Your task to perform on an android device: Search for sushi restaurants on Maps Image 0: 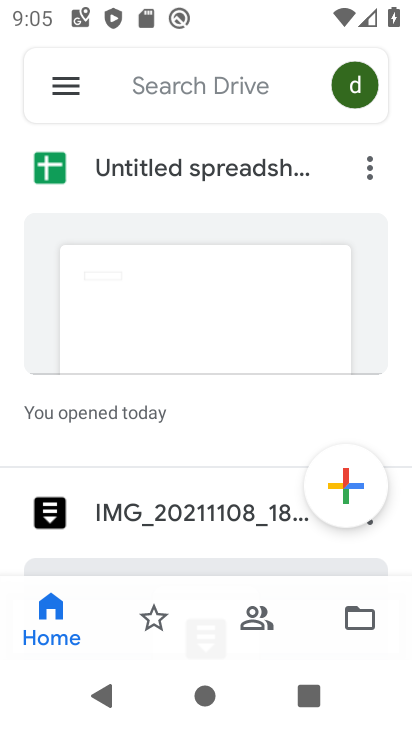
Step 0: press home button
Your task to perform on an android device: Search for sushi restaurants on Maps Image 1: 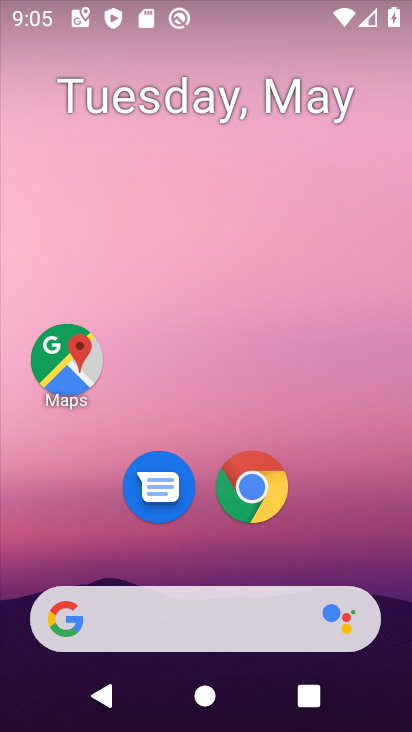
Step 1: drag from (369, 545) to (362, 235)
Your task to perform on an android device: Search for sushi restaurants on Maps Image 2: 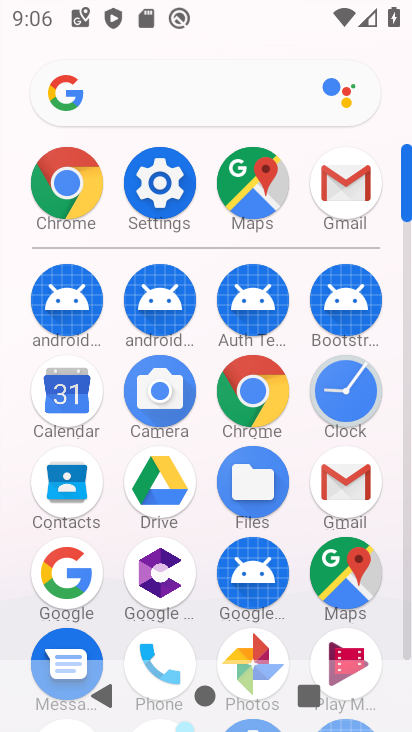
Step 2: click (361, 591)
Your task to perform on an android device: Search for sushi restaurants on Maps Image 3: 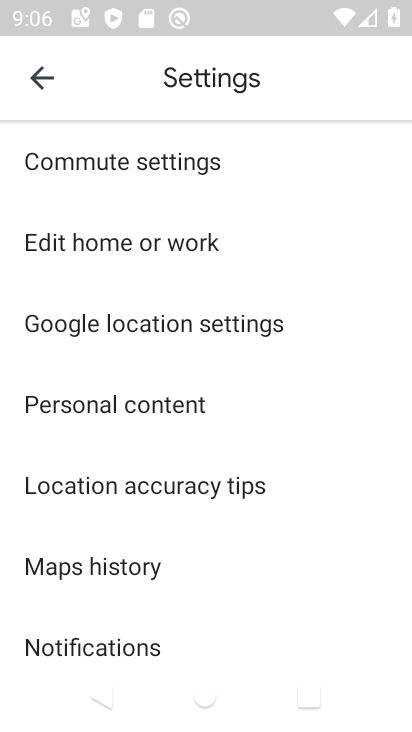
Step 3: press back button
Your task to perform on an android device: Search for sushi restaurants on Maps Image 4: 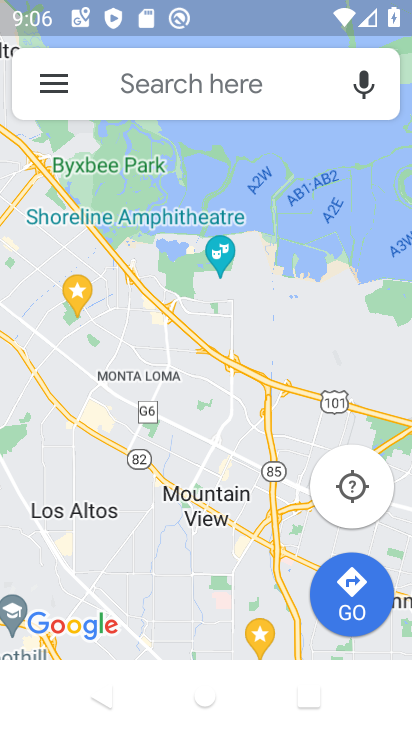
Step 4: click (195, 82)
Your task to perform on an android device: Search for sushi restaurants on Maps Image 5: 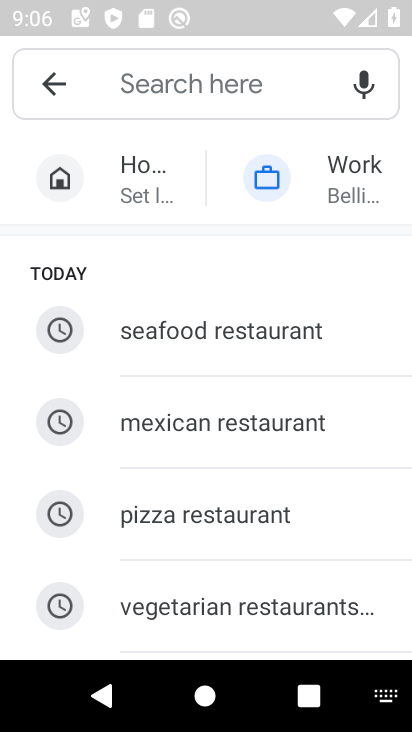
Step 5: type "sushi restaurants"
Your task to perform on an android device: Search for sushi restaurants on Maps Image 6: 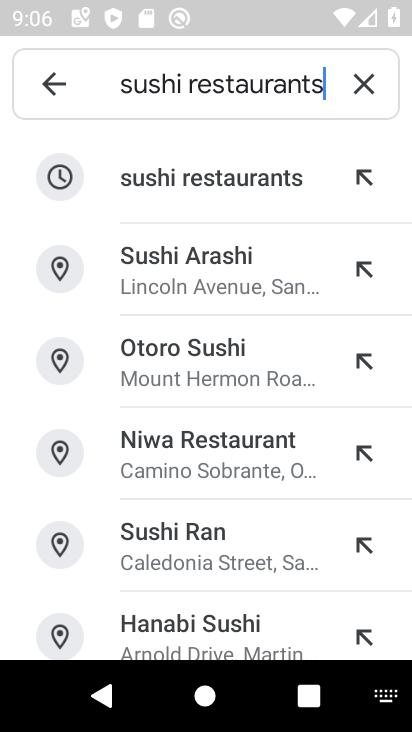
Step 6: click (269, 192)
Your task to perform on an android device: Search for sushi restaurants on Maps Image 7: 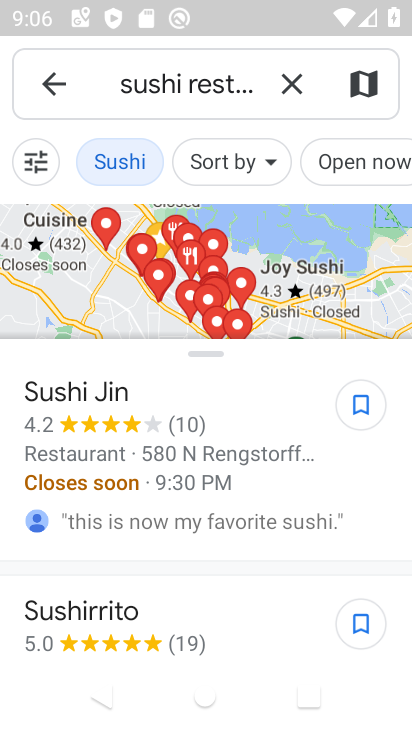
Step 7: task complete